Your task to perform on an android device: snooze an email in the gmail app Image 0: 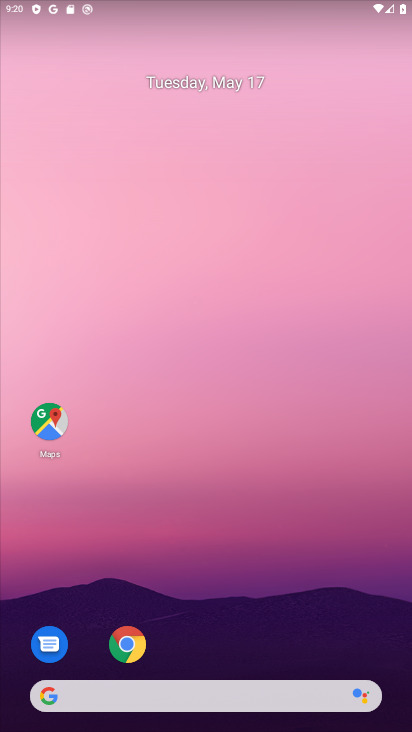
Step 0: drag from (165, 666) to (170, 150)
Your task to perform on an android device: snooze an email in the gmail app Image 1: 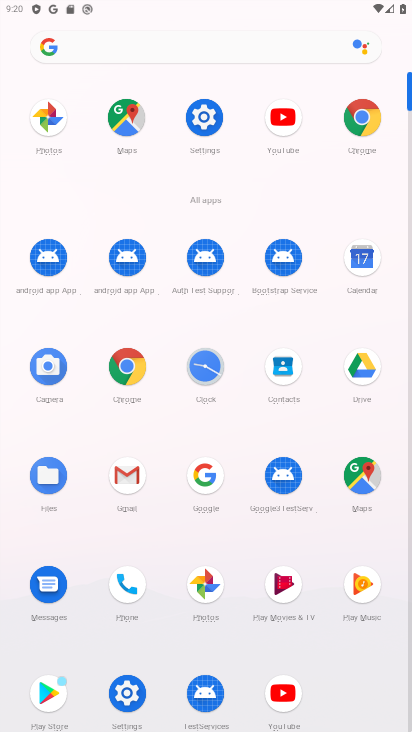
Step 1: click (120, 470)
Your task to perform on an android device: snooze an email in the gmail app Image 2: 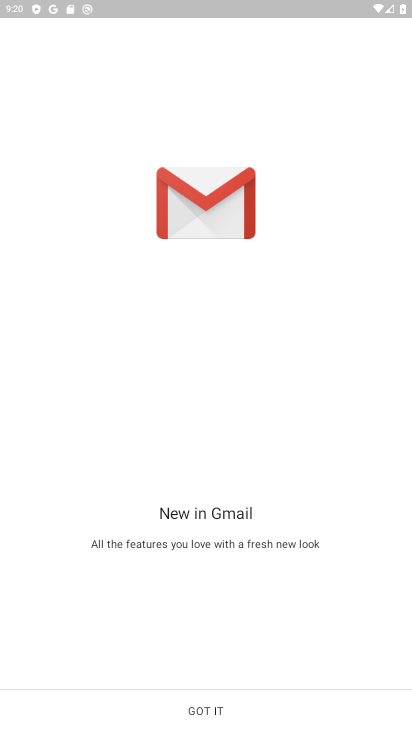
Step 2: click (132, 697)
Your task to perform on an android device: snooze an email in the gmail app Image 3: 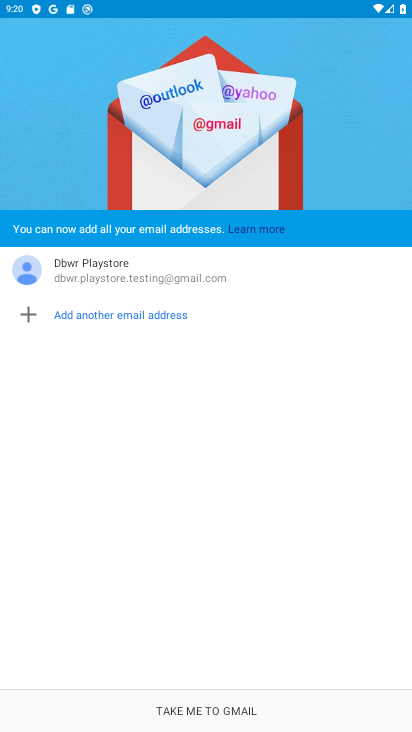
Step 3: click (132, 697)
Your task to perform on an android device: snooze an email in the gmail app Image 4: 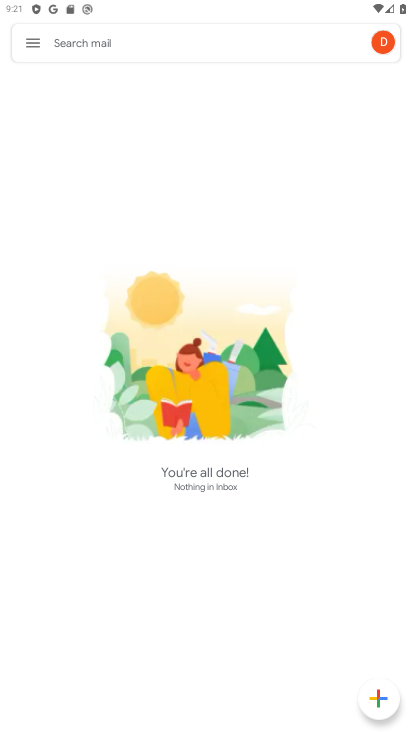
Step 4: task complete